Your task to perform on an android device: Open Android settings Image 0: 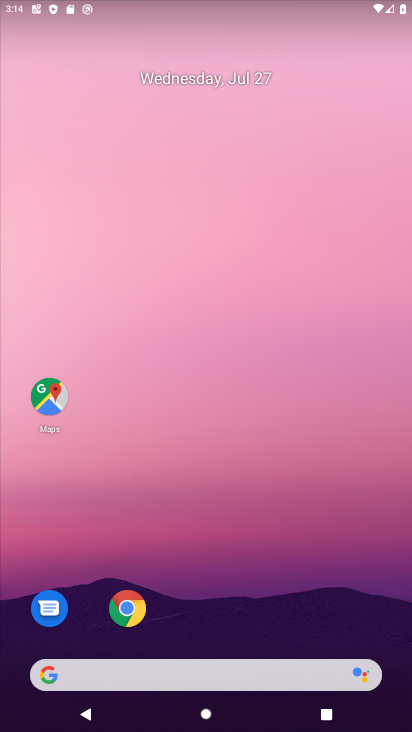
Step 0: drag from (388, 709) to (329, 158)
Your task to perform on an android device: Open Android settings Image 1: 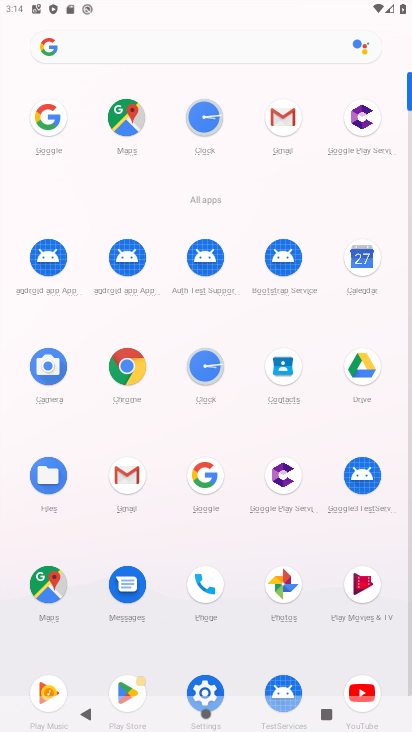
Step 1: click (198, 689)
Your task to perform on an android device: Open Android settings Image 2: 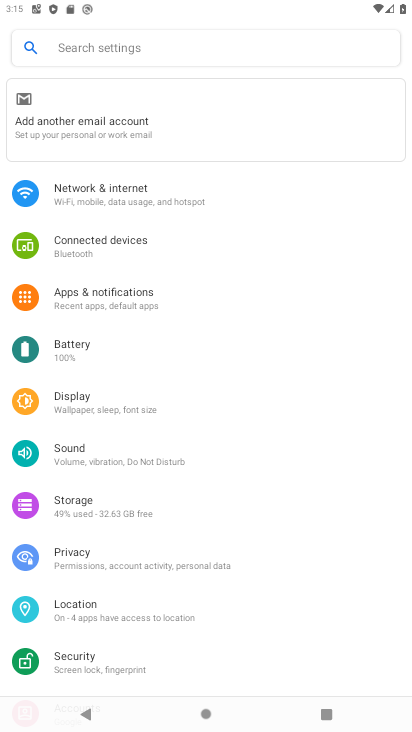
Step 2: task complete